Your task to perform on an android device: turn off picture-in-picture Image 0: 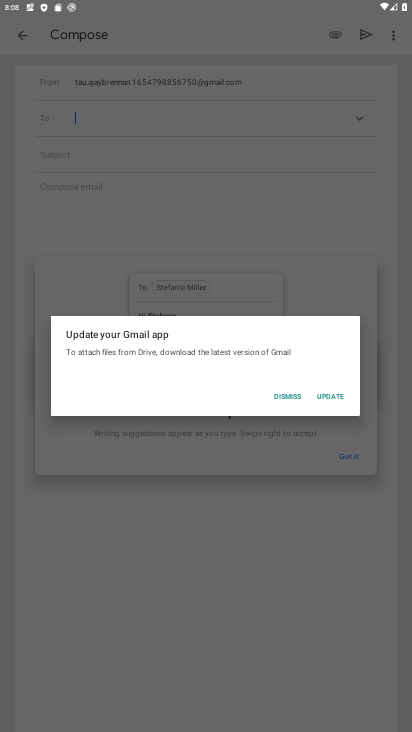
Step 0: press home button
Your task to perform on an android device: turn off picture-in-picture Image 1: 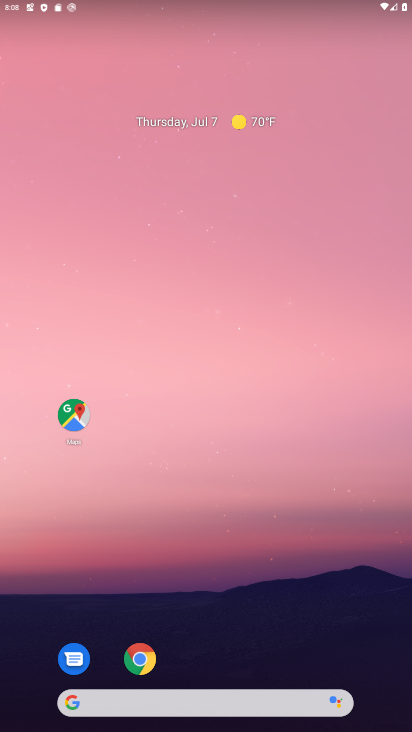
Step 1: drag from (229, 673) to (318, 197)
Your task to perform on an android device: turn off picture-in-picture Image 2: 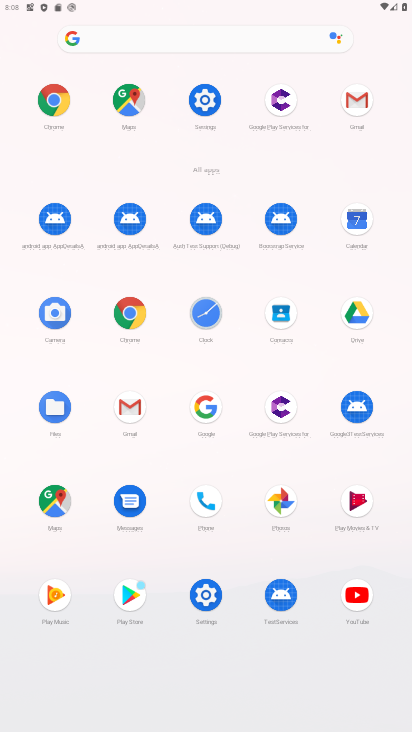
Step 2: click (214, 596)
Your task to perform on an android device: turn off picture-in-picture Image 3: 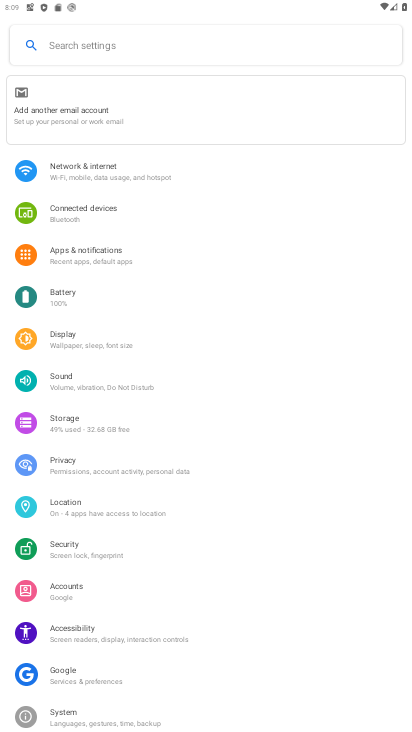
Step 3: click (119, 261)
Your task to perform on an android device: turn off picture-in-picture Image 4: 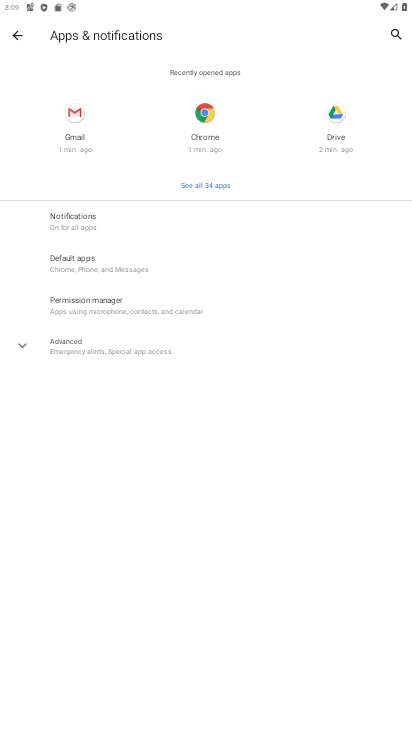
Step 4: click (102, 339)
Your task to perform on an android device: turn off picture-in-picture Image 5: 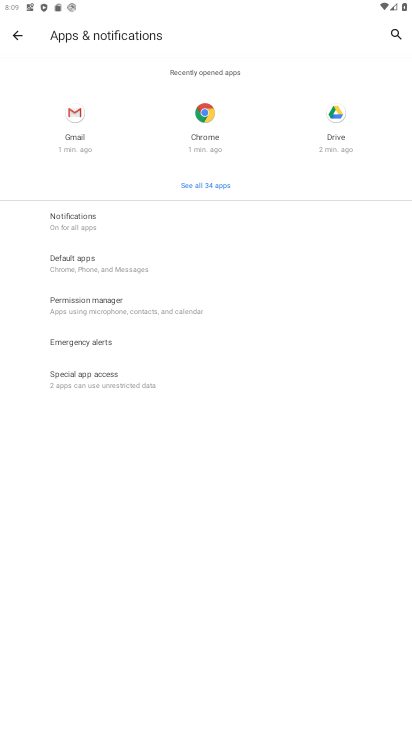
Step 5: click (135, 387)
Your task to perform on an android device: turn off picture-in-picture Image 6: 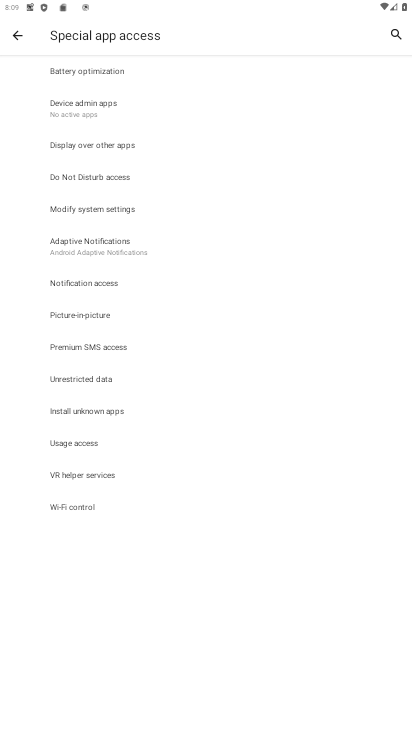
Step 6: click (135, 318)
Your task to perform on an android device: turn off picture-in-picture Image 7: 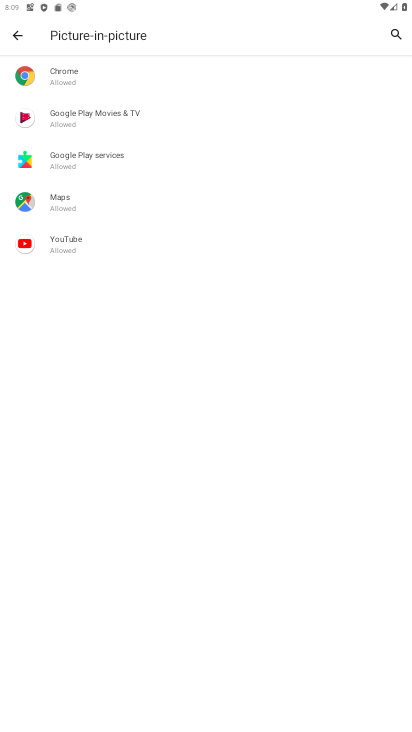
Step 7: click (134, 61)
Your task to perform on an android device: turn off picture-in-picture Image 8: 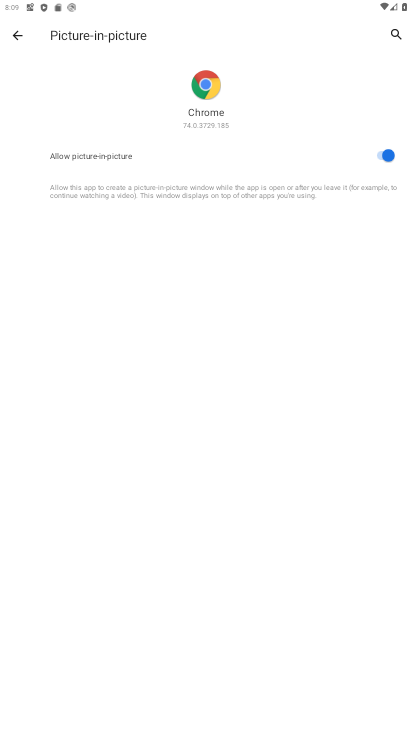
Step 8: click (376, 148)
Your task to perform on an android device: turn off picture-in-picture Image 9: 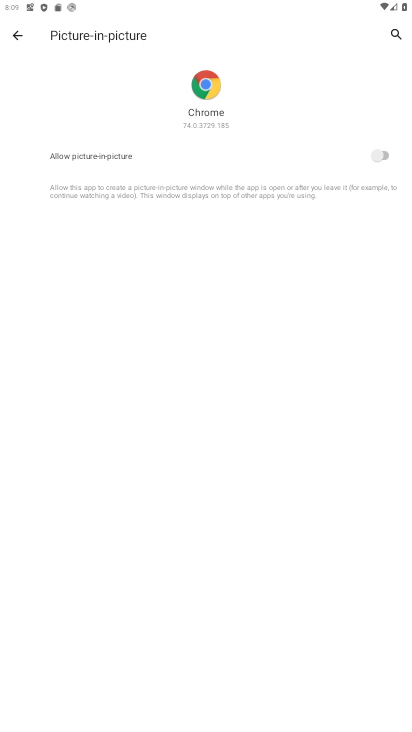
Step 9: press back button
Your task to perform on an android device: turn off picture-in-picture Image 10: 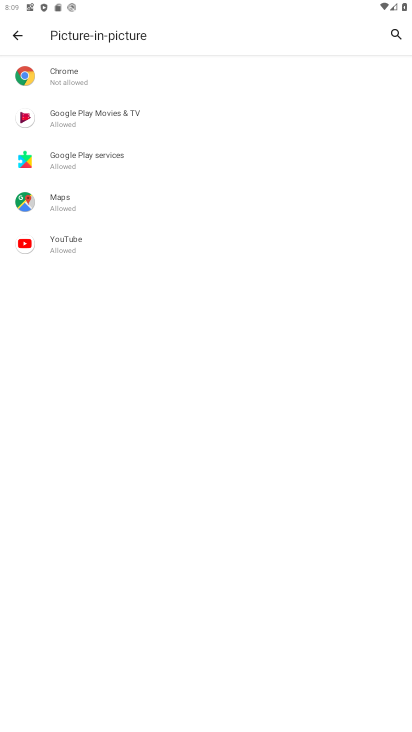
Step 10: click (186, 117)
Your task to perform on an android device: turn off picture-in-picture Image 11: 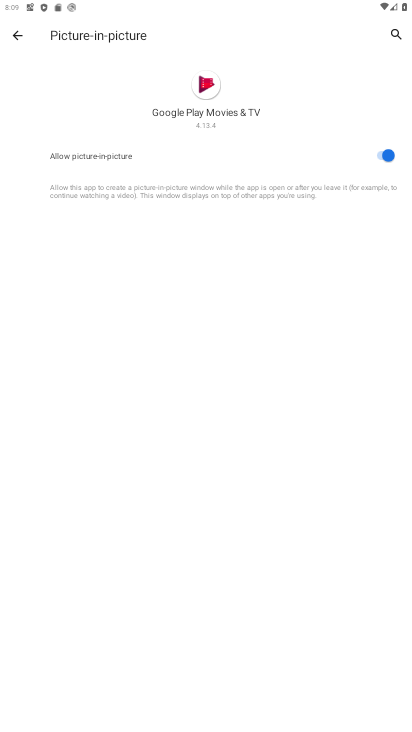
Step 11: click (376, 150)
Your task to perform on an android device: turn off picture-in-picture Image 12: 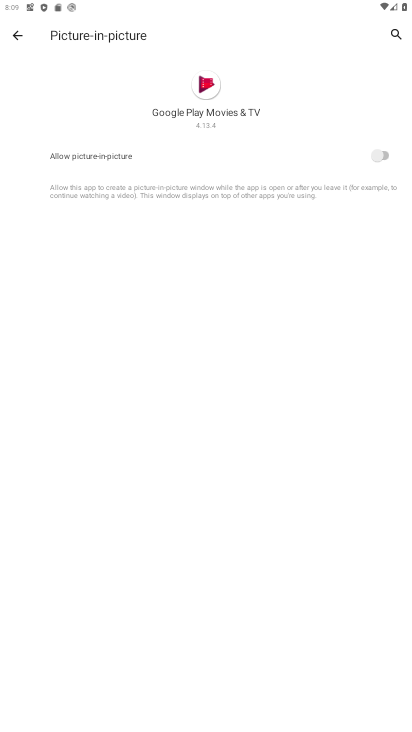
Step 12: press back button
Your task to perform on an android device: turn off picture-in-picture Image 13: 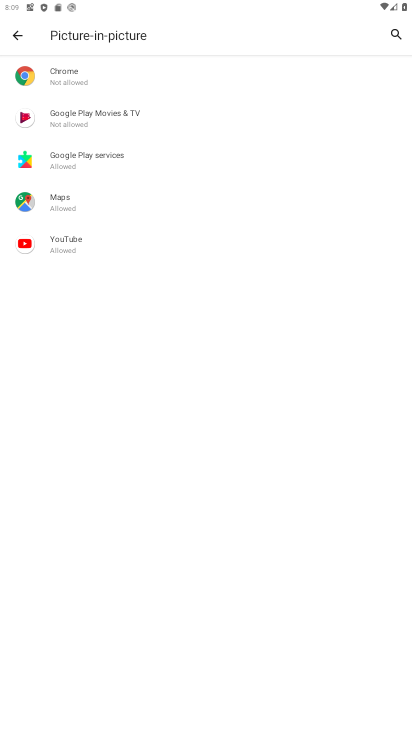
Step 13: click (142, 165)
Your task to perform on an android device: turn off picture-in-picture Image 14: 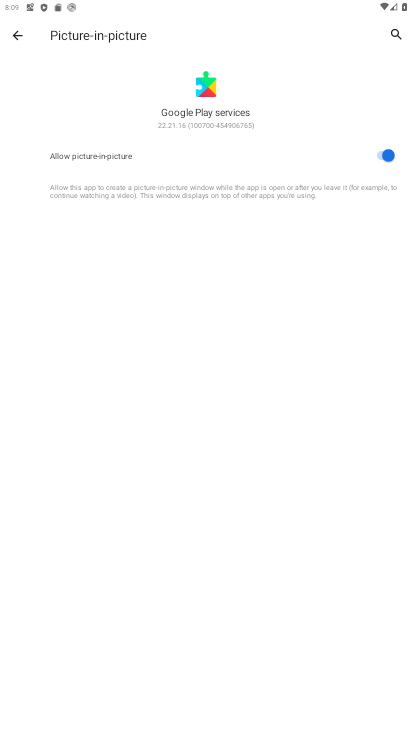
Step 14: click (380, 154)
Your task to perform on an android device: turn off picture-in-picture Image 15: 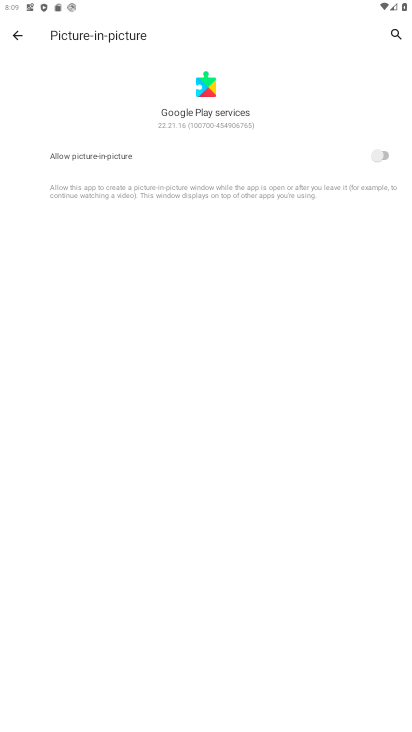
Step 15: press back button
Your task to perform on an android device: turn off picture-in-picture Image 16: 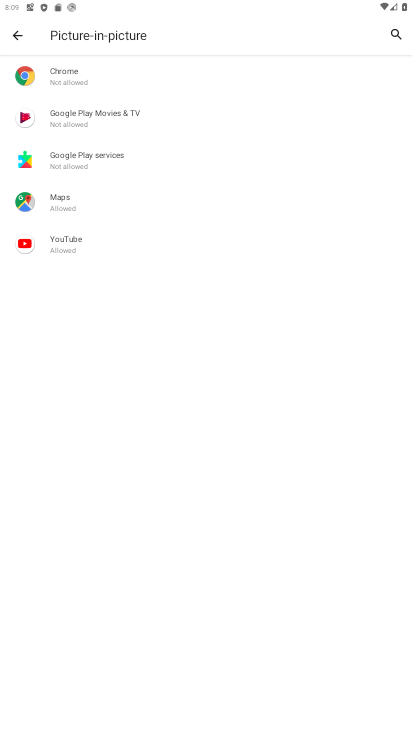
Step 16: click (102, 200)
Your task to perform on an android device: turn off picture-in-picture Image 17: 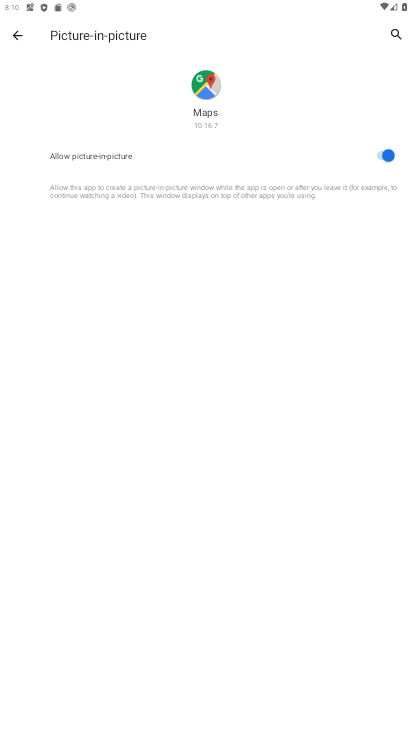
Step 17: click (386, 152)
Your task to perform on an android device: turn off picture-in-picture Image 18: 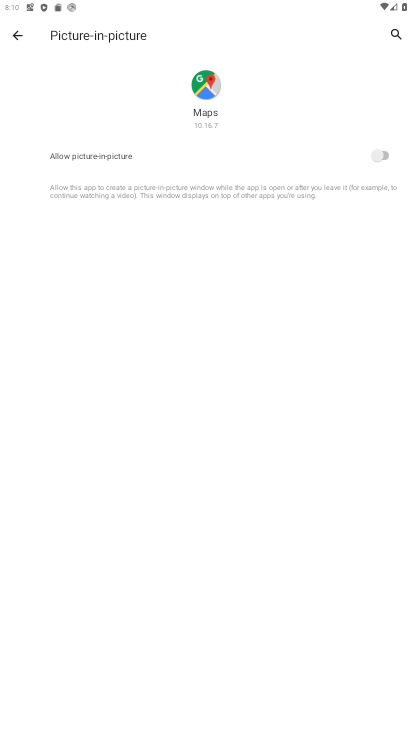
Step 18: press back button
Your task to perform on an android device: turn off picture-in-picture Image 19: 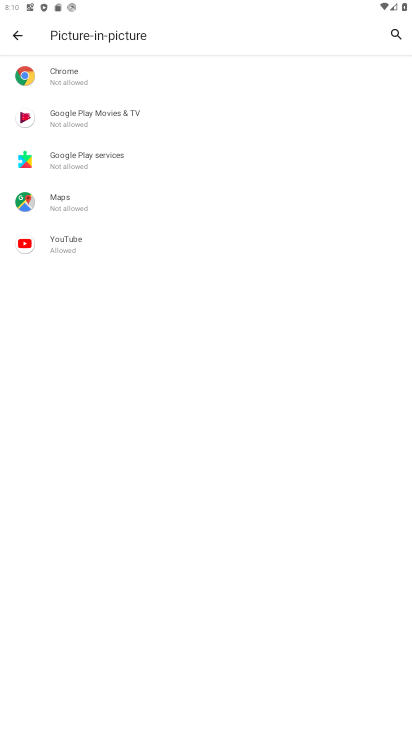
Step 19: click (102, 243)
Your task to perform on an android device: turn off picture-in-picture Image 20: 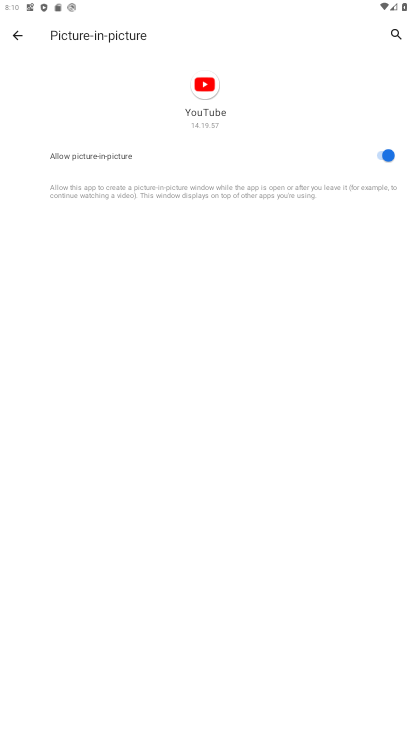
Step 20: click (380, 156)
Your task to perform on an android device: turn off picture-in-picture Image 21: 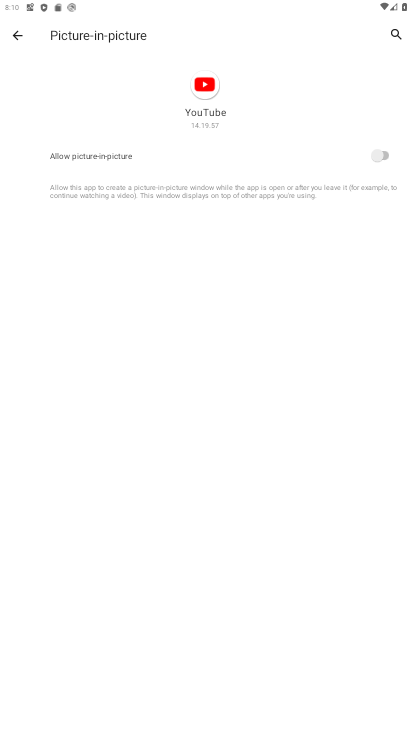
Step 21: task complete